Your task to perform on an android device: open a new tab in the chrome app Image 0: 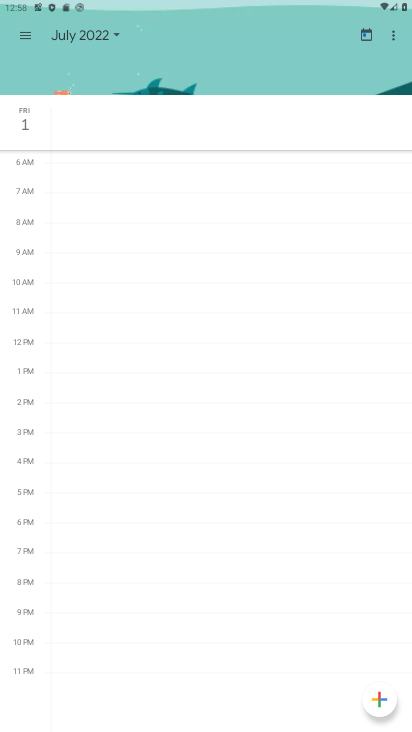
Step 0: press home button
Your task to perform on an android device: open a new tab in the chrome app Image 1: 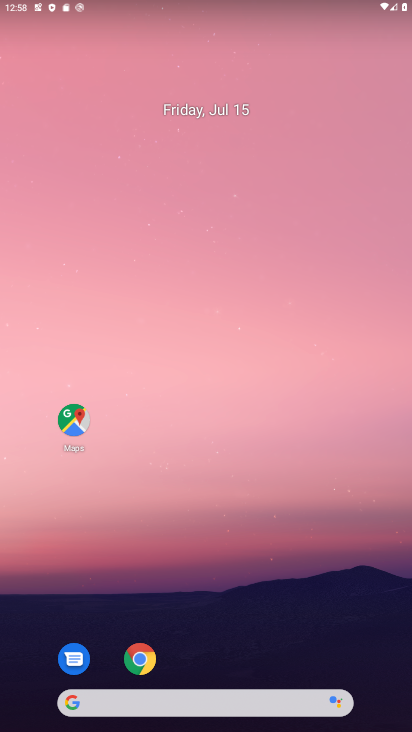
Step 1: click (152, 661)
Your task to perform on an android device: open a new tab in the chrome app Image 2: 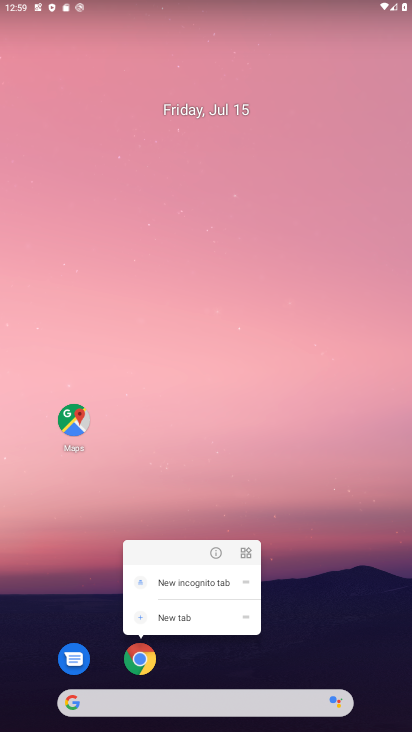
Step 2: click (133, 656)
Your task to perform on an android device: open a new tab in the chrome app Image 3: 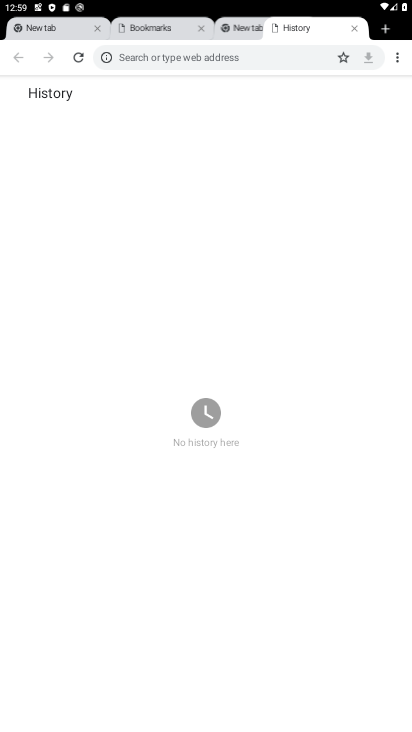
Step 3: click (379, 30)
Your task to perform on an android device: open a new tab in the chrome app Image 4: 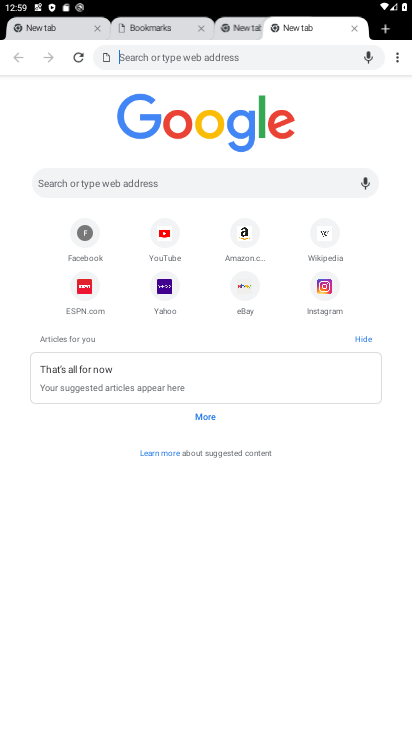
Step 4: task complete